Your task to perform on an android device: change your default location settings in chrome Image 0: 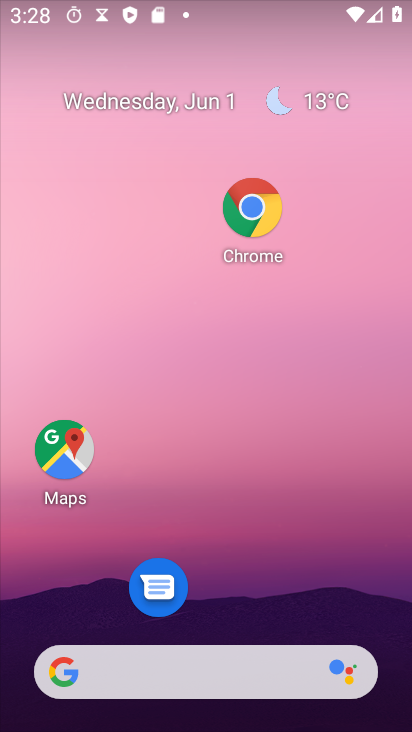
Step 0: drag from (255, 697) to (154, 110)
Your task to perform on an android device: change your default location settings in chrome Image 1: 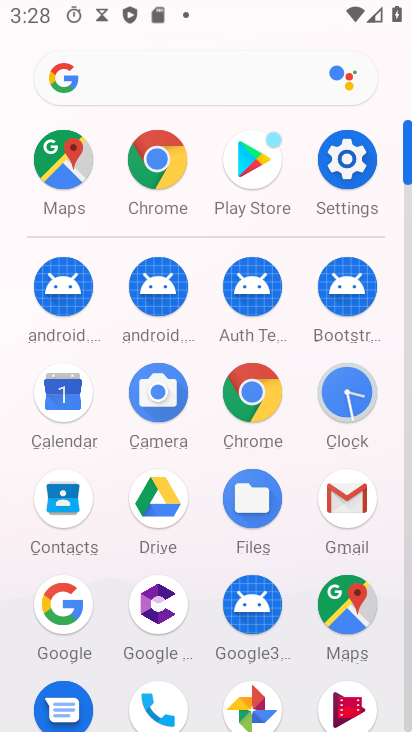
Step 1: click (254, 399)
Your task to perform on an android device: change your default location settings in chrome Image 2: 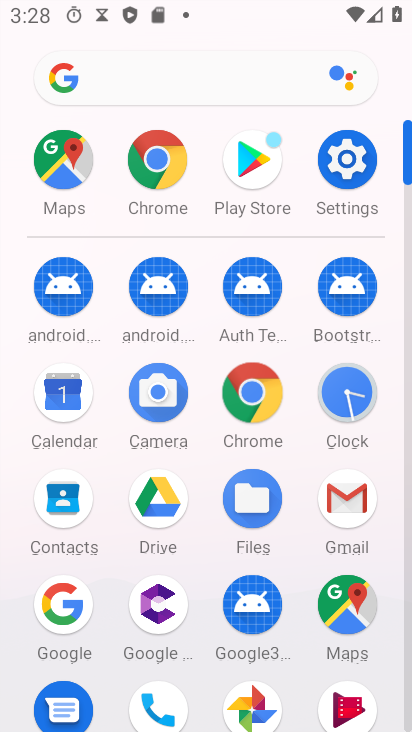
Step 2: click (259, 397)
Your task to perform on an android device: change your default location settings in chrome Image 3: 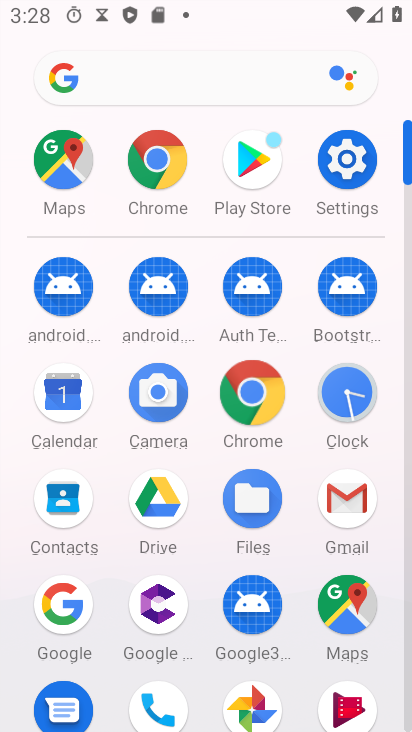
Step 3: click (259, 397)
Your task to perform on an android device: change your default location settings in chrome Image 4: 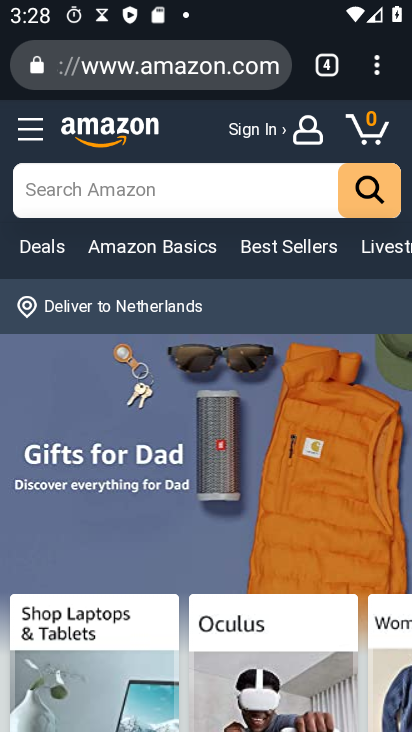
Step 4: drag from (375, 61) to (136, 639)
Your task to perform on an android device: change your default location settings in chrome Image 5: 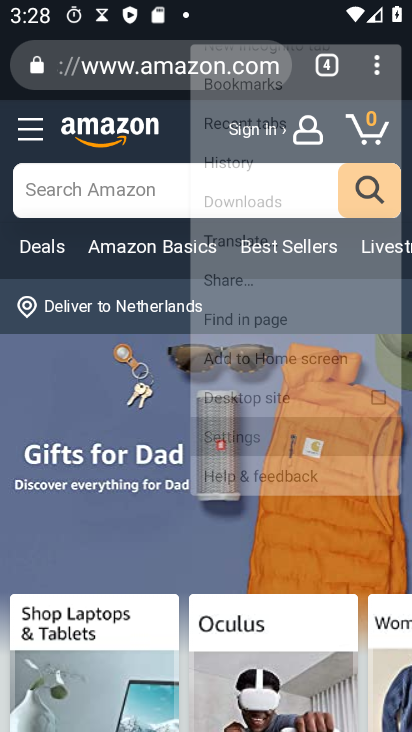
Step 5: click (137, 639)
Your task to perform on an android device: change your default location settings in chrome Image 6: 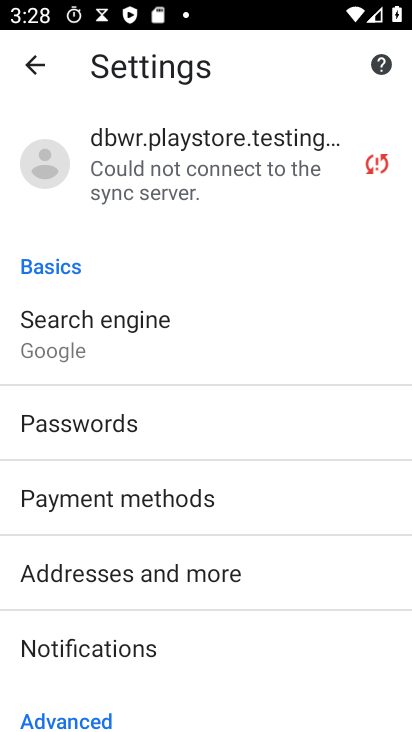
Step 6: drag from (183, 394) to (141, 127)
Your task to perform on an android device: change your default location settings in chrome Image 7: 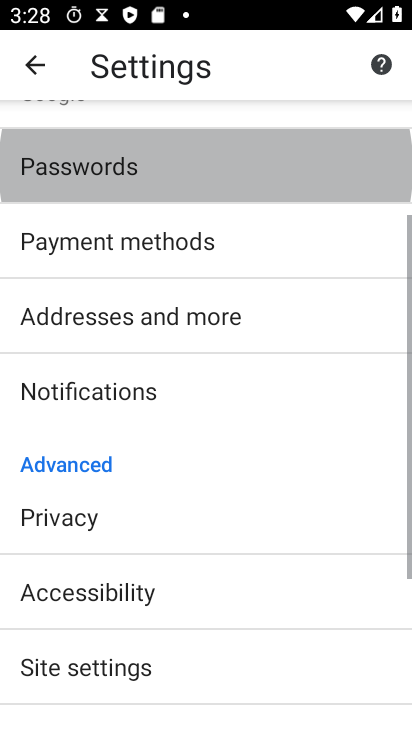
Step 7: drag from (177, 444) to (167, 138)
Your task to perform on an android device: change your default location settings in chrome Image 8: 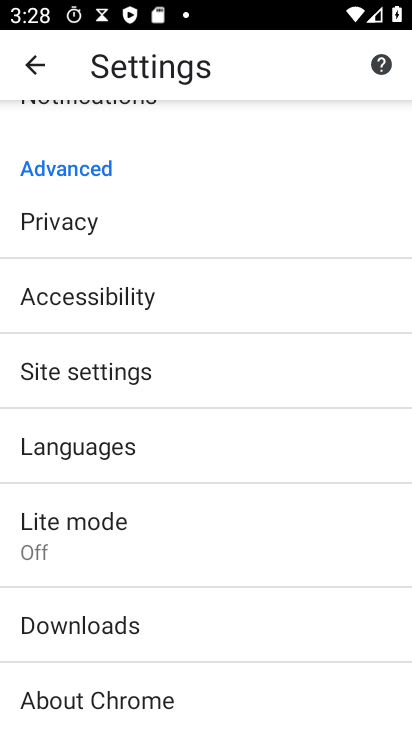
Step 8: click (77, 444)
Your task to perform on an android device: change your default location settings in chrome Image 9: 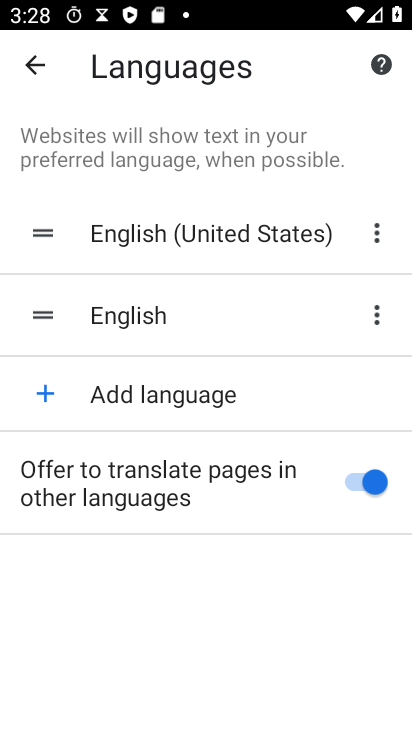
Step 9: click (26, 54)
Your task to perform on an android device: change your default location settings in chrome Image 10: 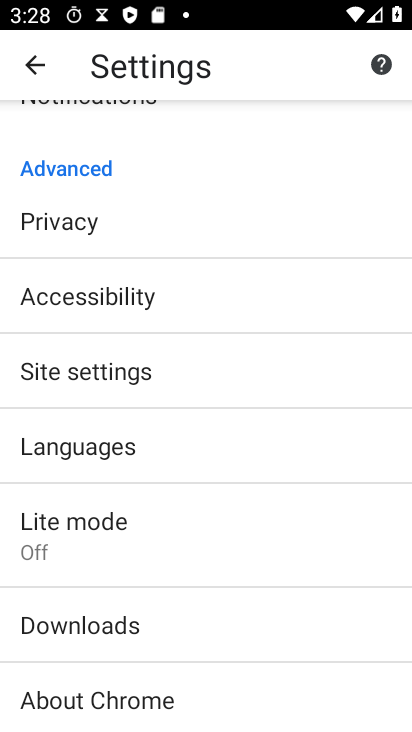
Step 10: click (72, 444)
Your task to perform on an android device: change your default location settings in chrome Image 11: 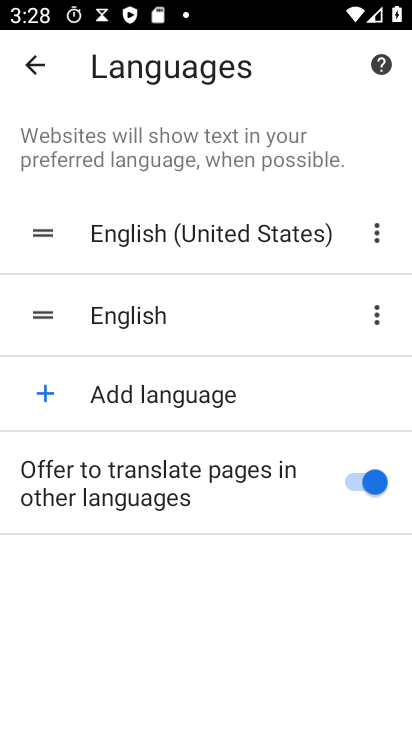
Step 11: click (38, 63)
Your task to perform on an android device: change your default location settings in chrome Image 12: 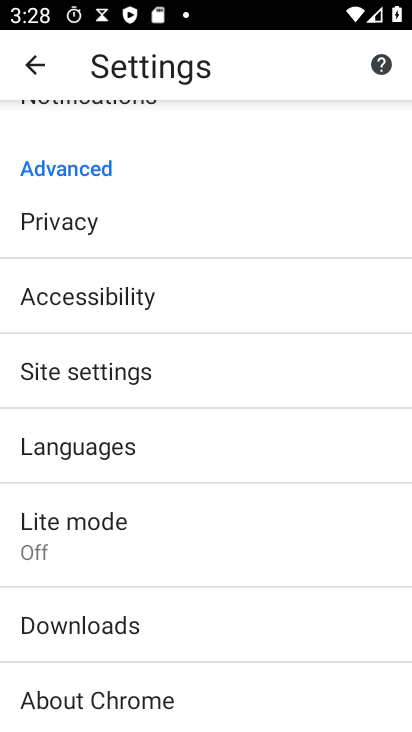
Step 12: click (67, 372)
Your task to perform on an android device: change your default location settings in chrome Image 13: 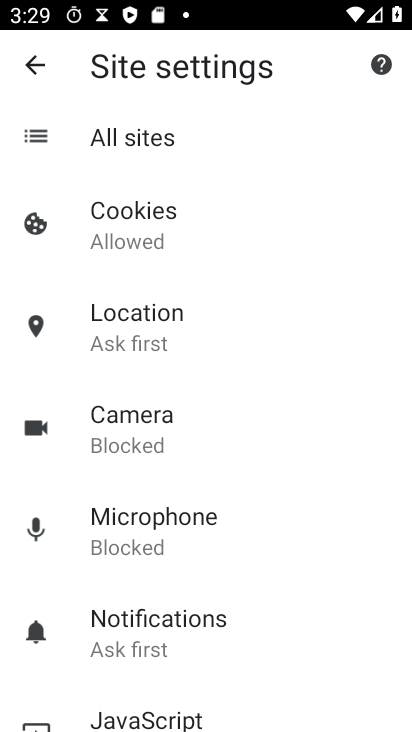
Step 13: click (135, 313)
Your task to perform on an android device: change your default location settings in chrome Image 14: 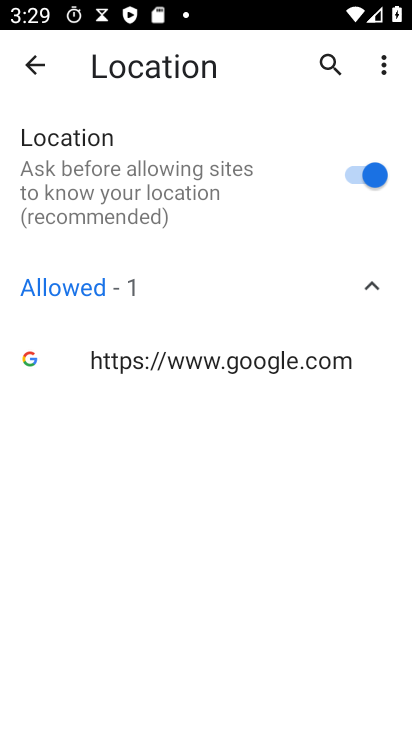
Step 14: click (371, 170)
Your task to perform on an android device: change your default location settings in chrome Image 15: 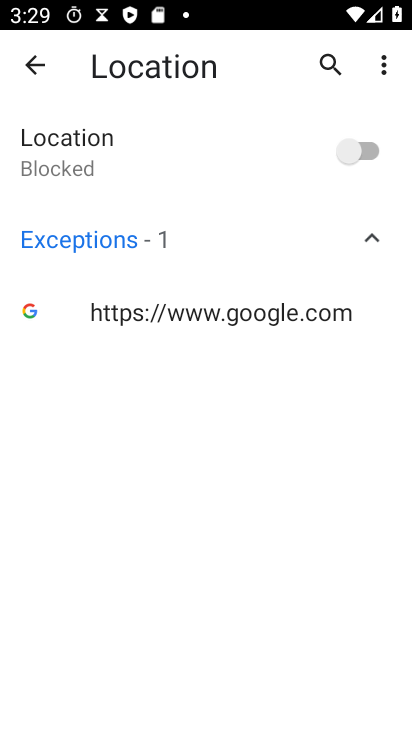
Step 15: task complete